Your task to perform on an android device: turn off notifications settings in the gmail app Image 0: 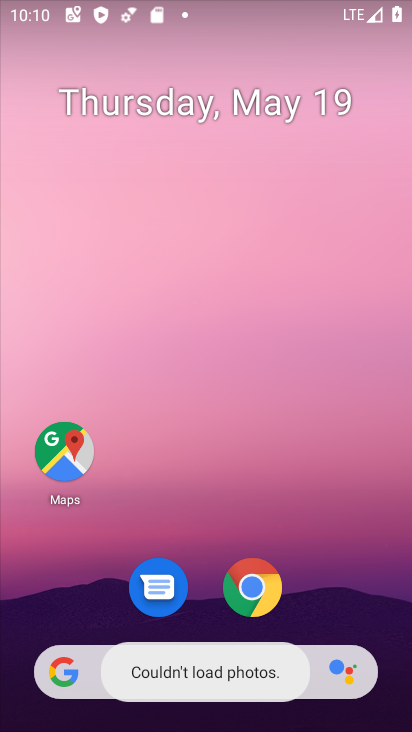
Step 0: drag from (210, 616) to (243, 239)
Your task to perform on an android device: turn off notifications settings in the gmail app Image 1: 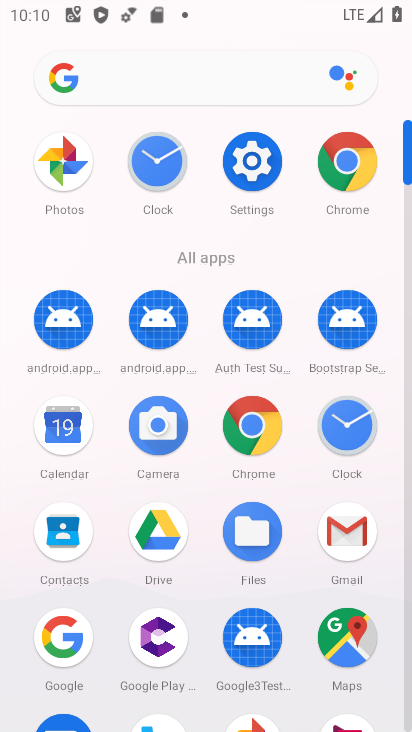
Step 1: click (354, 518)
Your task to perform on an android device: turn off notifications settings in the gmail app Image 2: 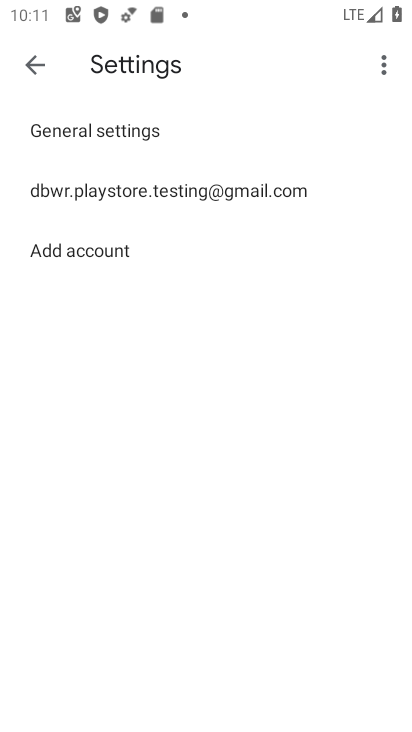
Step 2: click (138, 196)
Your task to perform on an android device: turn off notifications settings in the gmail app Image 3: 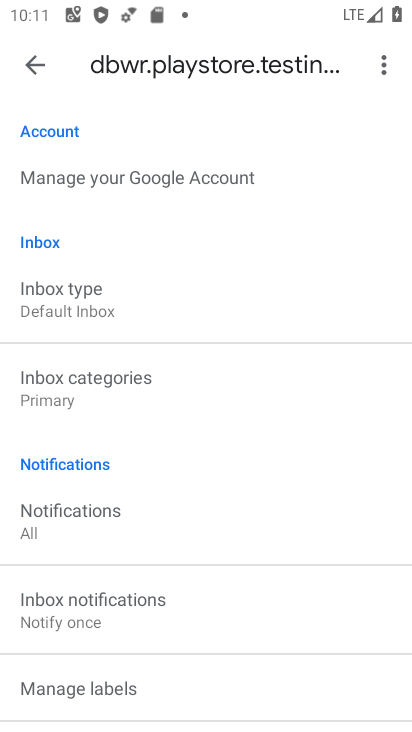
Step 3: click (156, 555)
Your task to perform on an android device: turn off notifications settings in the gmail app Image 4: 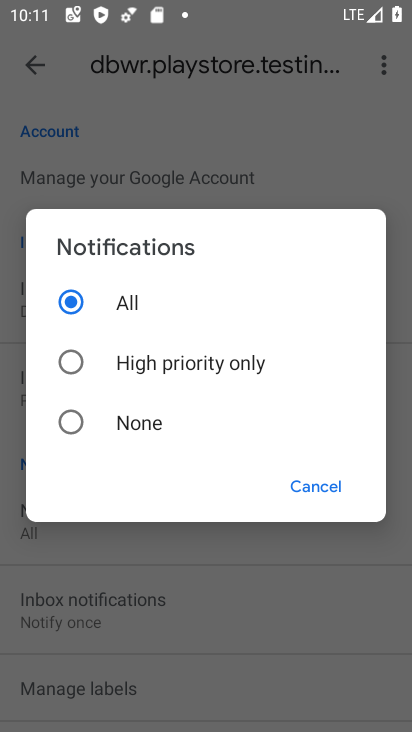
Step 4: click (147, 432)
Your task to perform on an android device: turn off notifications settings in the gmail app Image 5: 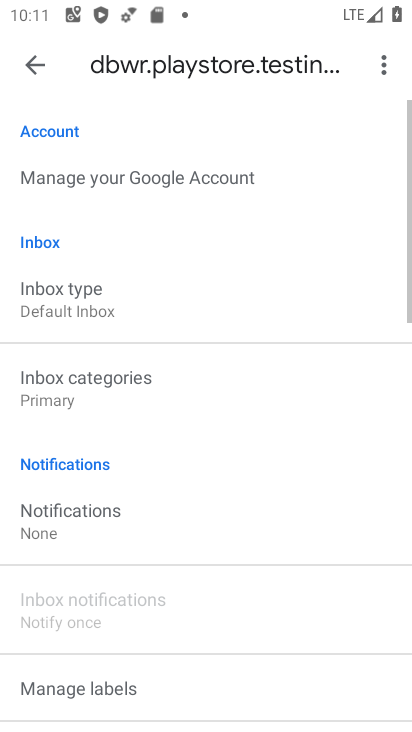
Step 5: task complete